Your task to perform on an android device: Open the web browser Image 0: 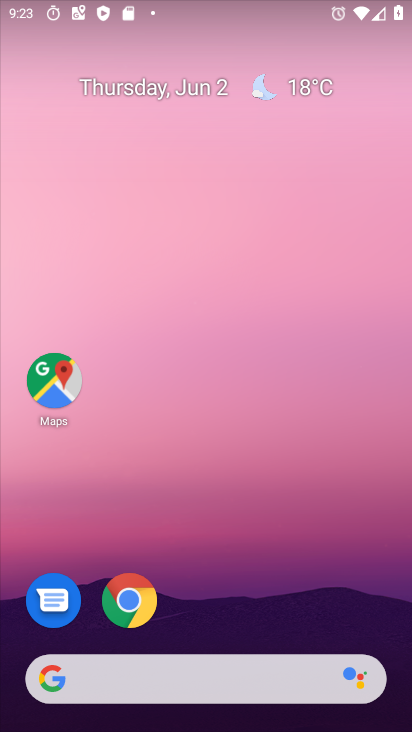
Step 0: drag from (368, 604) to (372, 229)
Your task to perform on an android device: Open the web browser Image 1: 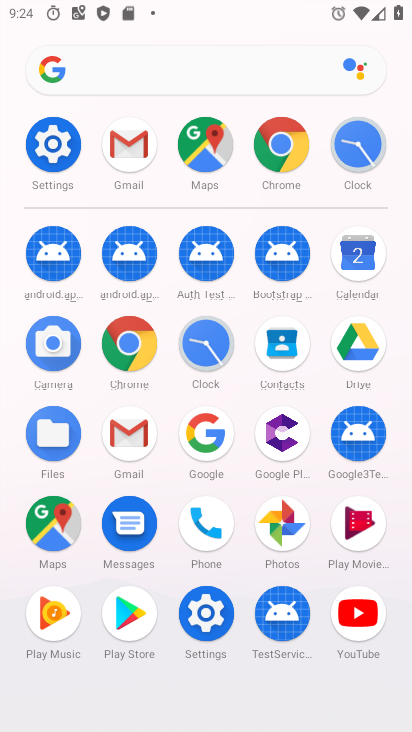
Step 1: click (144, 350)
Your task to perform on an android device: Open the web browser Image 2: 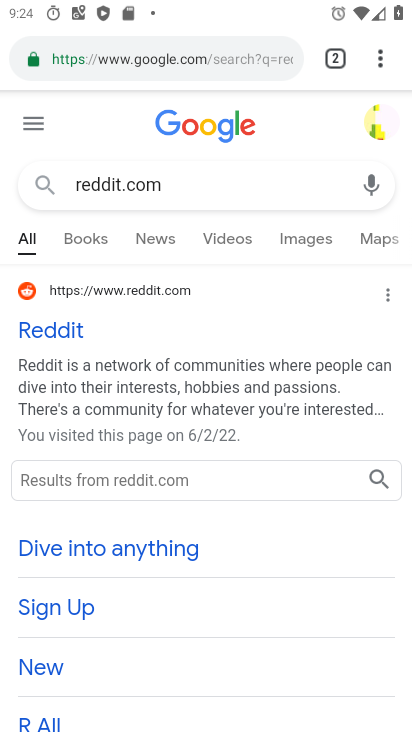
Step 2: task complete